Your task to perform on an android device: open device folders in google photos Image 0: 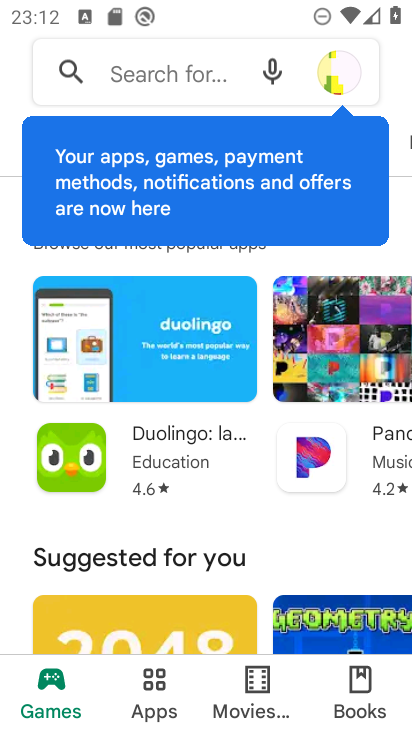
Step 0: press home button
Your task to perform on an android device: open device folders in google photos Image 1: 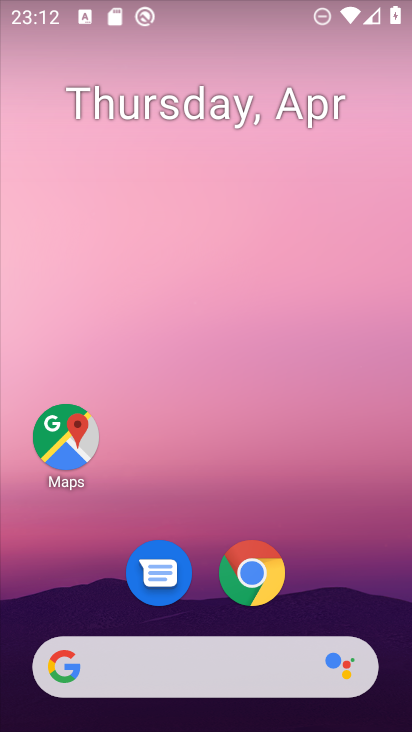
Step 1: drag from (304, 342) to (286, 133)
Your task to perform on an android device: open device folders in google photos Image 2: 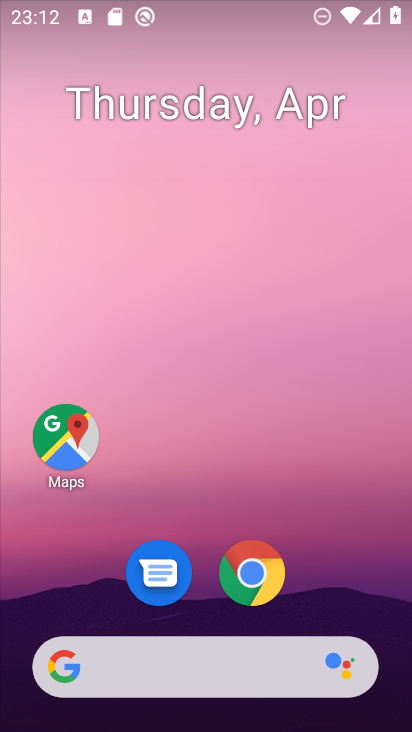
Step 2: drag from (315, 606) to (316, 84)
Your task to perform on an android device: open device folders in google photos Image 3: 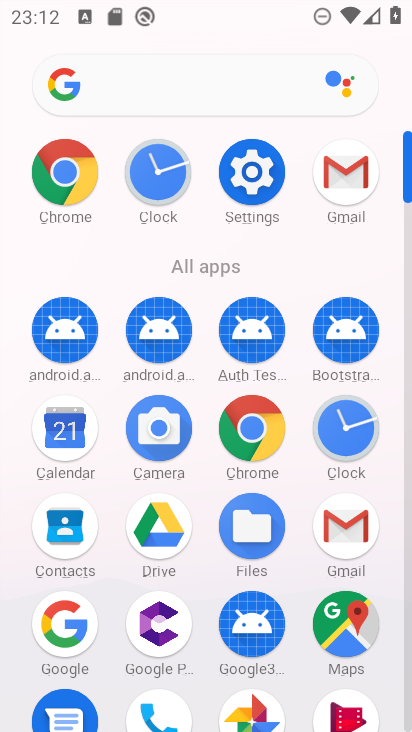
Step 3: drag from (209, 610) to (229, 168)
Your task to perform on an android device: open device folders in google photos Image 4: 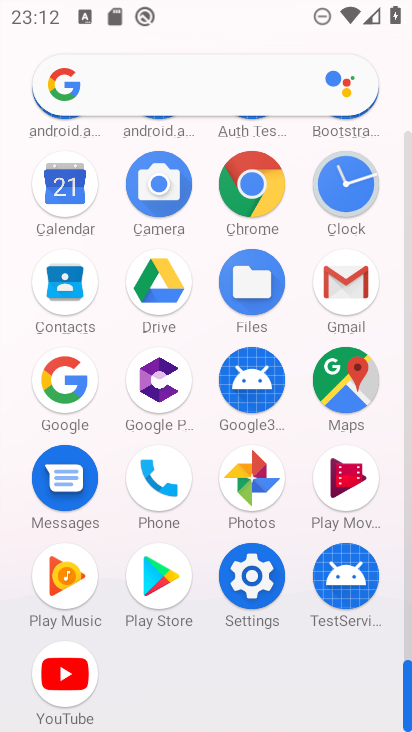
Step 4: click (249, 498)
Your task to perform on an android device: open device folders in google photos Image 5: 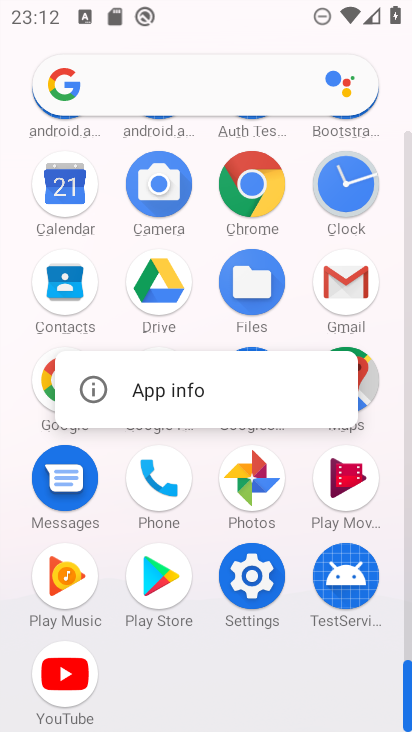
Step 5: click (249, 498)
Your task to perform on an android device: open device folders in google photos Image 6: 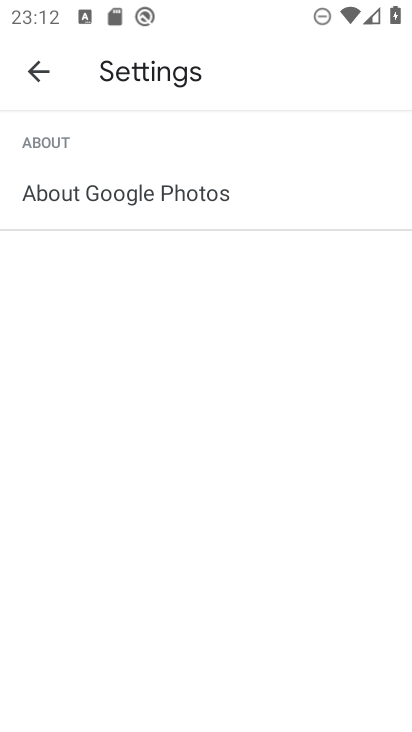
Step 6: click (41, 71)
Your task to perform on an android device: open device folders in google photos Image 7: 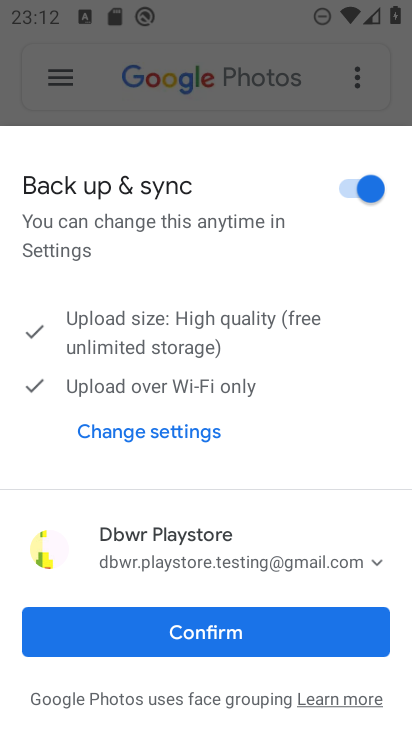
Step 7: click (200, 635)
Your task to perform on an android device: open device folders in google photos Image 8: 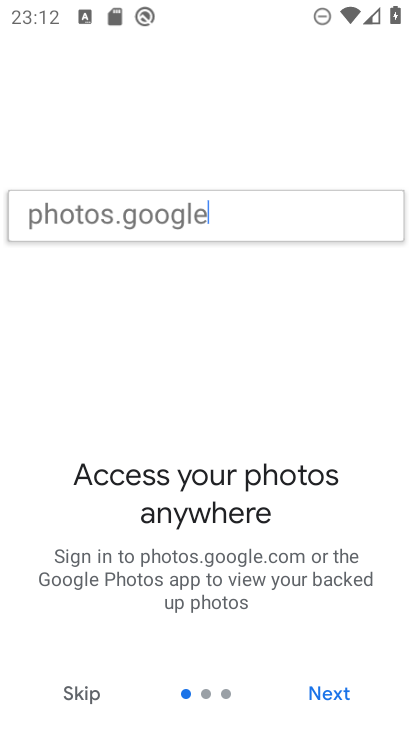
Step 8: click (355, 707)
Your task to perform on an android device: open device folders in google photos Image 9: 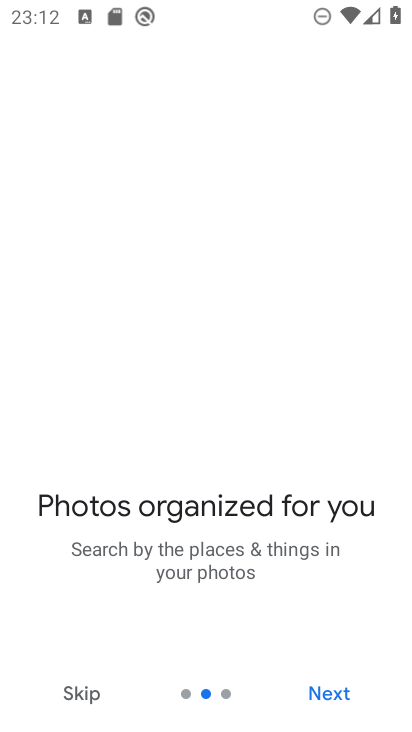
Step 9: click (354, 692)
Your task to perform on an android device: open device folders in google photos Image 10: 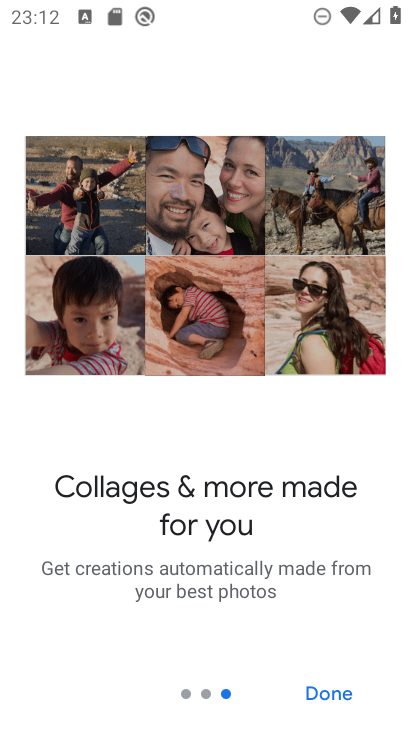
Step 10: click (346, 688)
Your task to perform on an android device: open device folders in google photos Image 11: 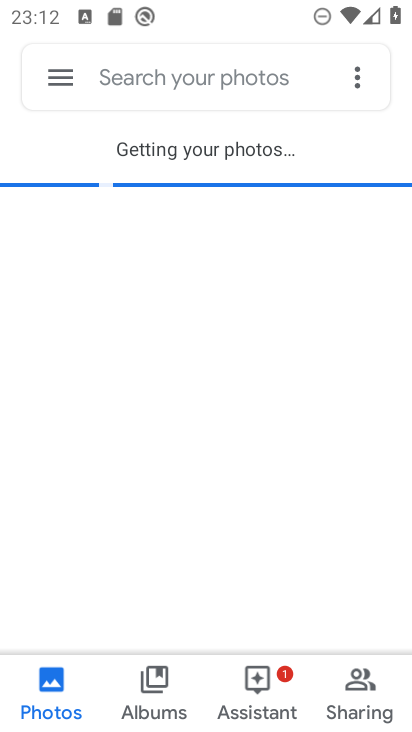
Step 11: click (58, 78)
Your task to perform on an android device: open device folders in google photos Image 12: 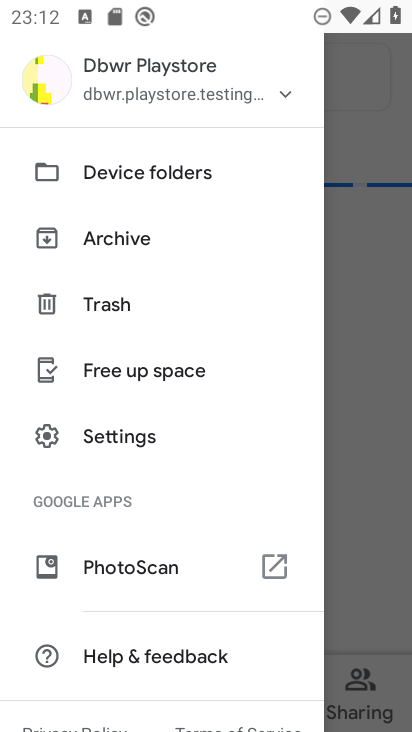
Step 12: click (223, 176)
Your task to perform on an android device: open device folders in google photos Image 13: 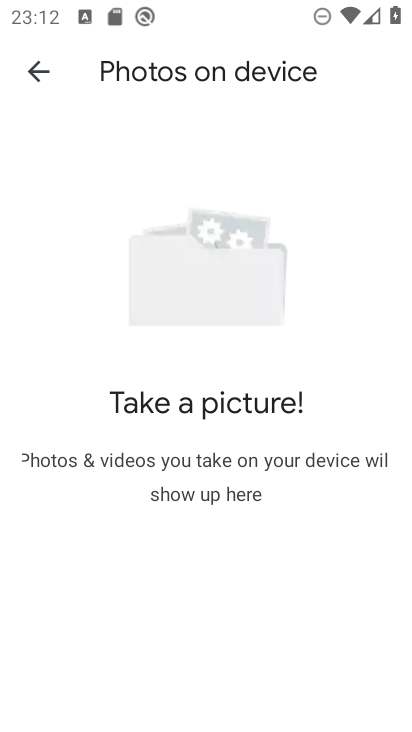
Step 13: task complete